Your task to perform on an android device: see sites visited before in the chrome app Image 0: 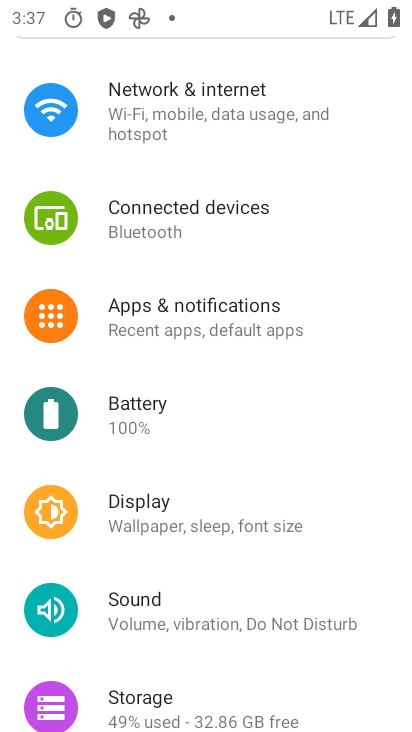
Step 0: press home button
Your task to perform on an android device: see sites visited before in the chrome app Image 1: 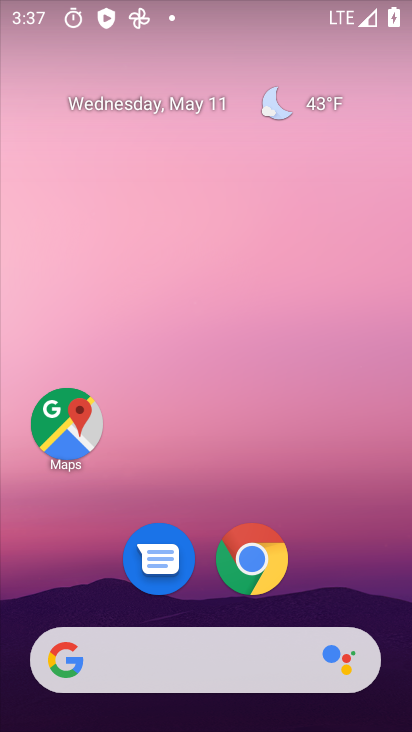
Step 1: click (253, 548)
Your task to perform on an android device: see sites visited before in the chrome app Image 2: 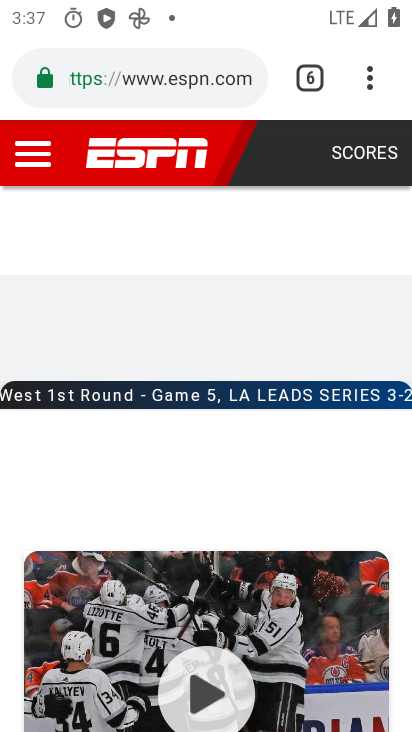
Step 2: click (367, 68)
Your task to perform on an android device: see sites visited before in the chrome app Image 3: 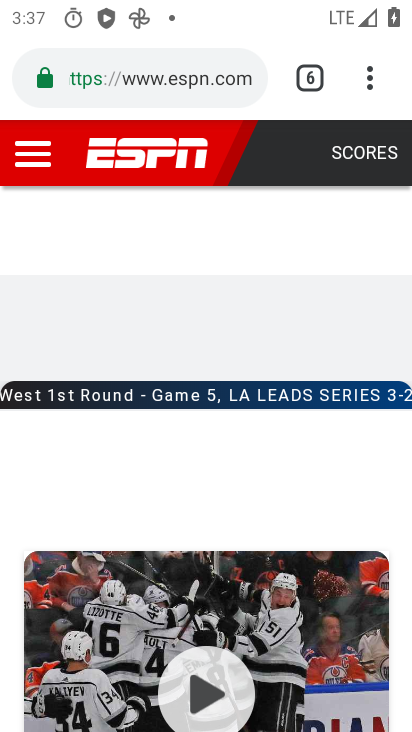
Step 3: click (363, 77)
Your task to perform on an android device: see sites visited before in the chrome app Image 4: 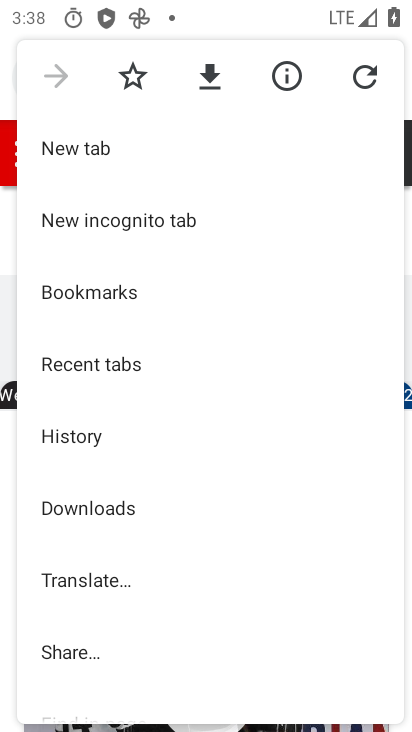
Step 4: click (129, 428)
Your task to perform on an android device: see sites visited before in the chrome app Image 5: 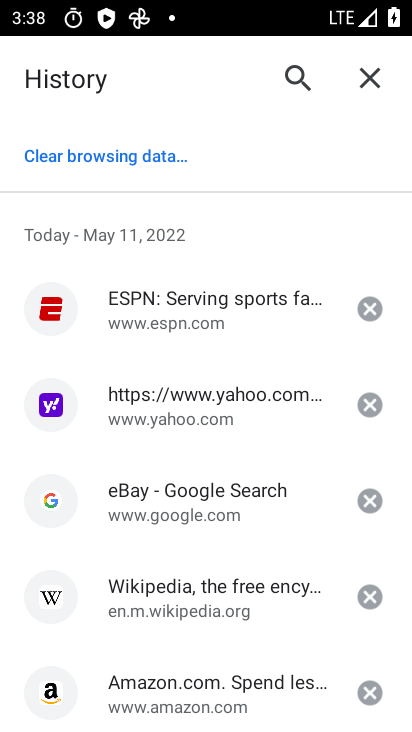
Step 5: task complete